Your task to perform on an android device: turn on data saver in the chrome app Image 0: 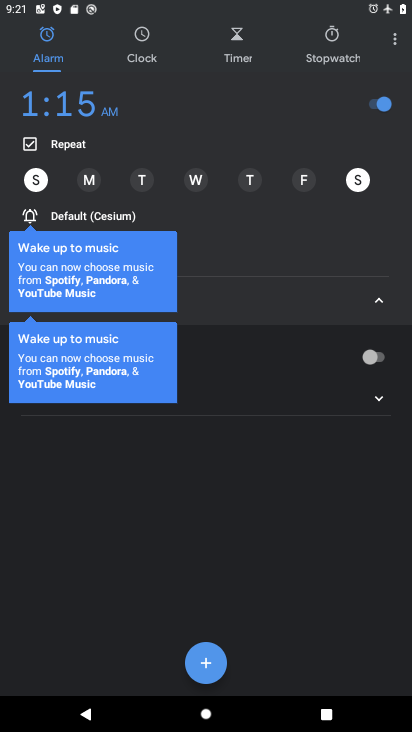
Step 0: press home button
Your task to perform on an android device: turn on data saver in the chrome app Image 1: 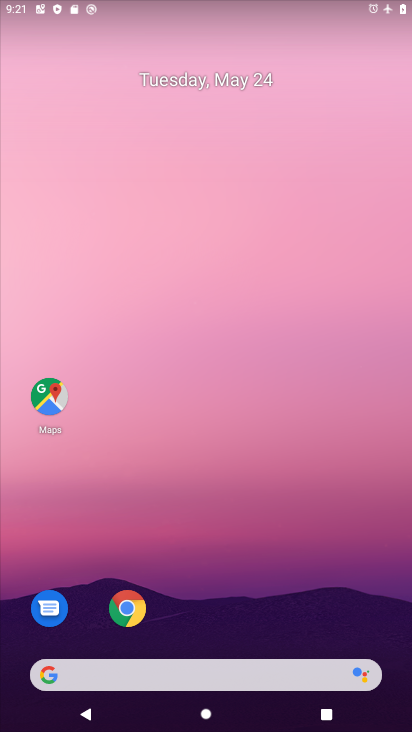
Step 1: click (140, 600)
Your task to perform on an android device: turn on data saver in the chrome app Image 2: 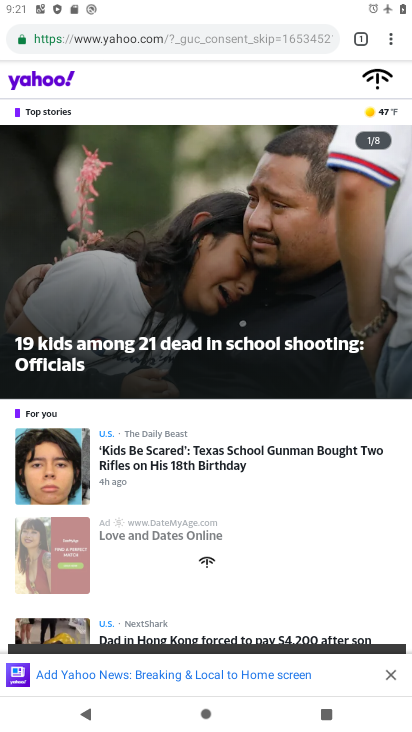
Step 2: click (392, 46)
Your task to perform on an android device: turn on data saver in the chrome app Image 3: 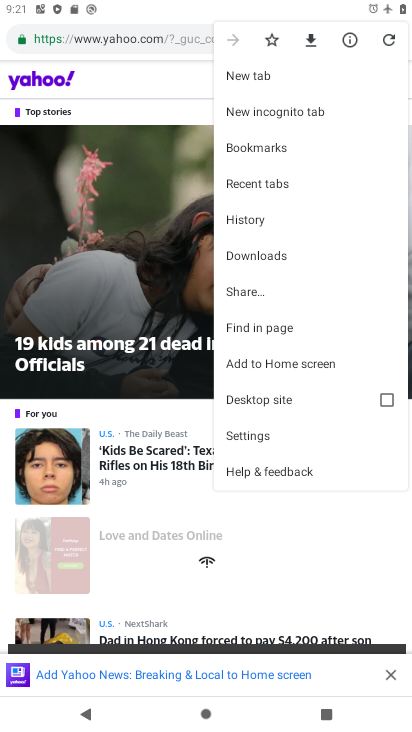
Step 3: click (270, 436)
Your task to perform on an android device: turn on data saver in the chrome app Image 4: 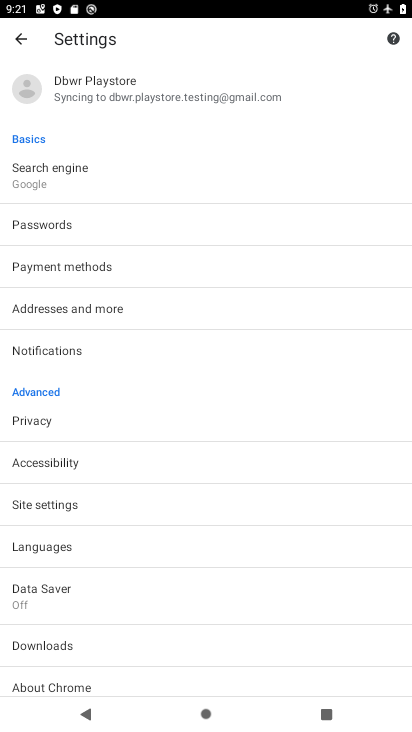
Step 4: click (78, 603)
Your task to perform on an android device: turn on data saver in the chrome app Image 5: 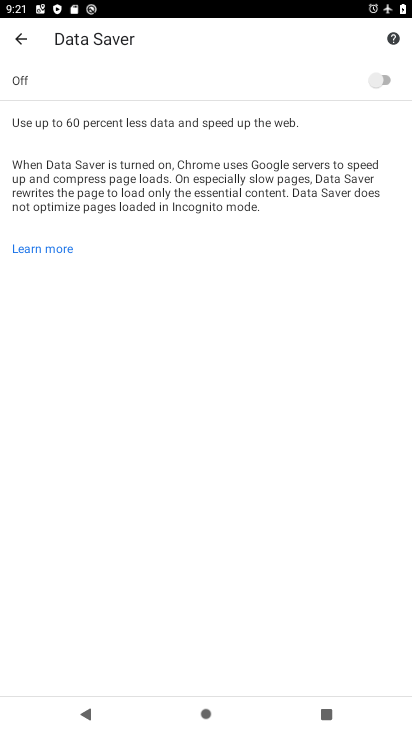
Step 5: click (365, 72)
Your task to perform on an android device: turn on data saver in the chrome app Image 6: 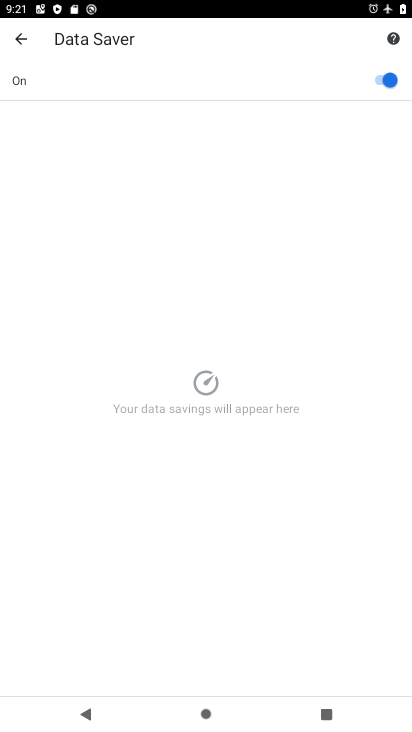
Step 6: task complete